Your task to perform on an android device: read, delete, or share a saved page in the chrome app Image 0: 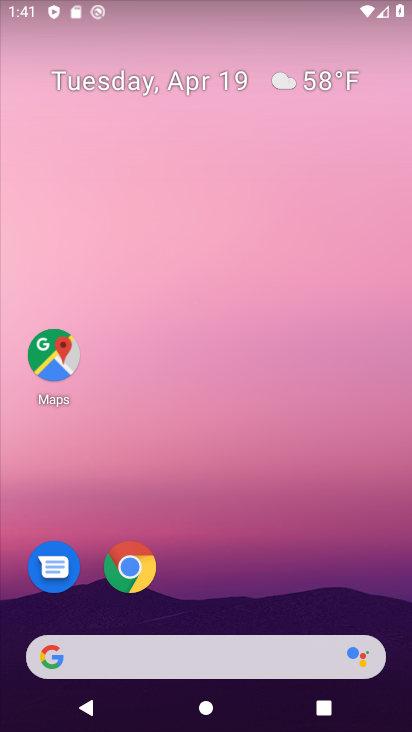
Step 0: click (129, 565)
Your task to perform on an android device: read, delete, or share a saved page in the chrome app Image 1: 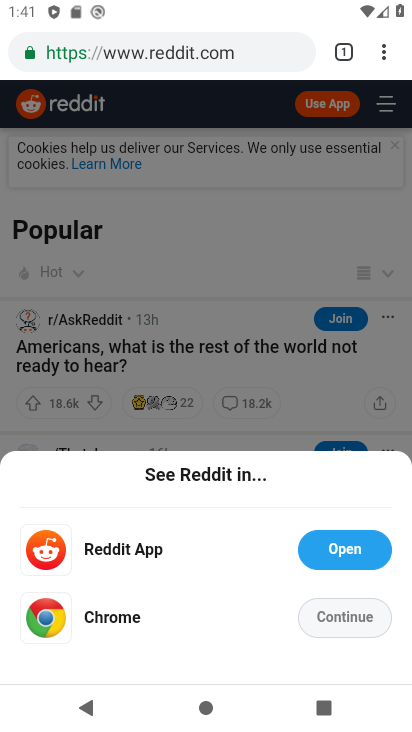
Step 1: click (381, 57)
Your task to perform on an android device: read, delete, or share a saved page in the chrome app Image 2: 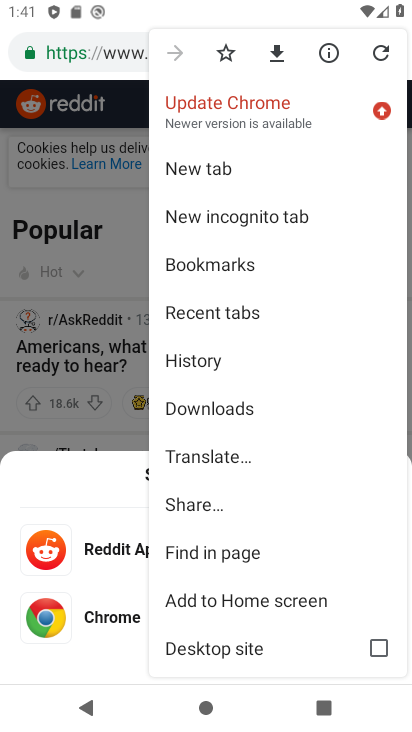
Step 2: click (198, 407)
Your task to perform on an android device: read, delete, or share a saved page in the chrome app Image 3: 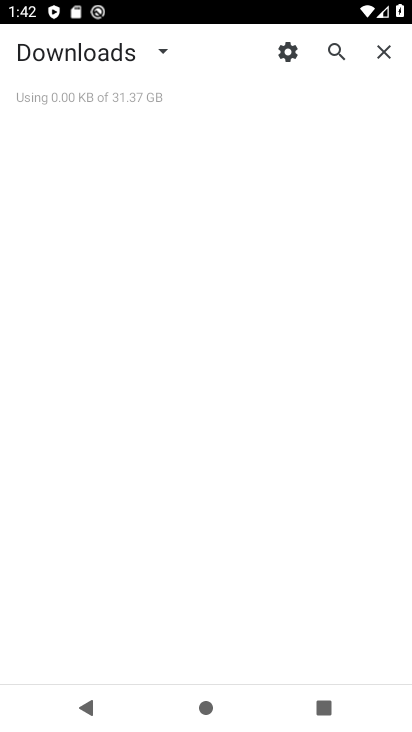
Step 3: click (198, 415)
Your task to perform on an android device: read, delete, or share a saved page in the chrome app Image 4: 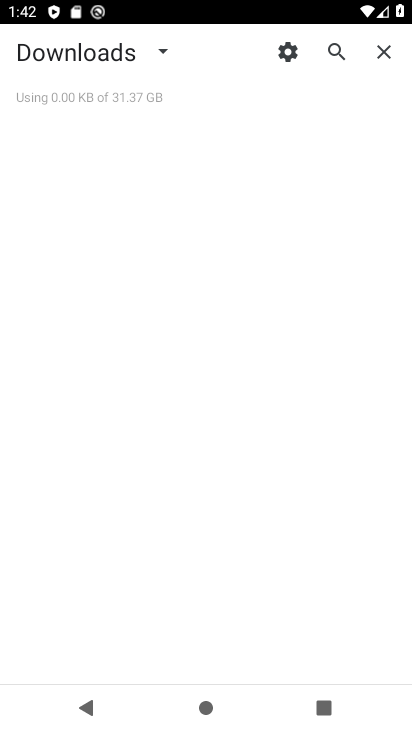
Step 4: click (159, 53)
Your task to perform on an android device: read, delete, or share a saved page in the chrome app Image 5: 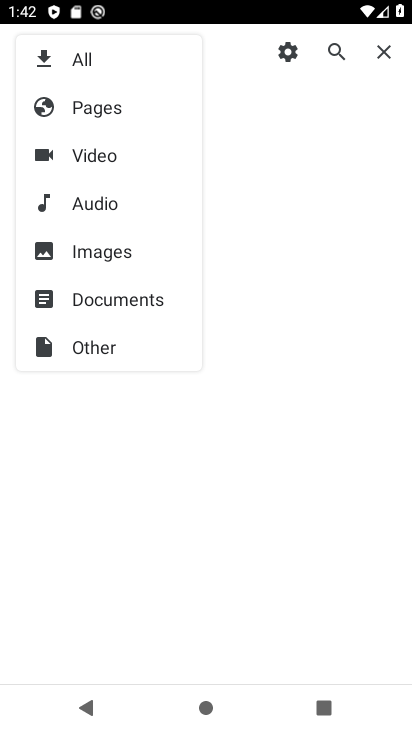
Step 5: click (95, 116)
Your task to perform on an android device: read, delete, or share a saved page in the chrome app Image 6: 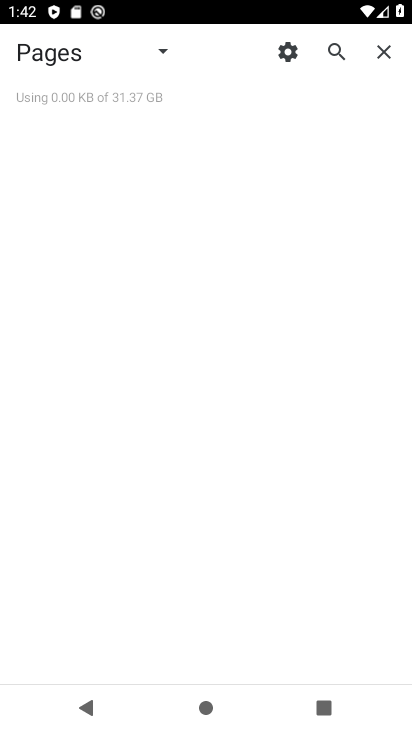
Step 6: task complete